Your task to perform on an android device: turn on the 24-hour format for clock Image 0: 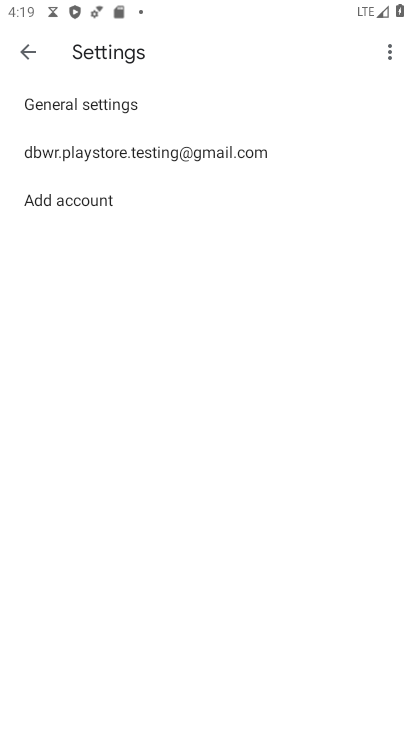
Step 0: press back button
Your task to perform on an android device: turn on the 24-hour format for clock Image 1: 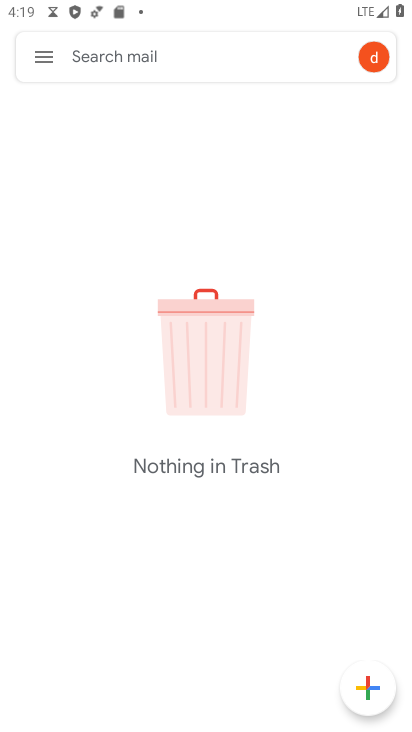
Step 1: press back button
Your task to perform on an android device: turn on the 24-hour format for clock Image 2: 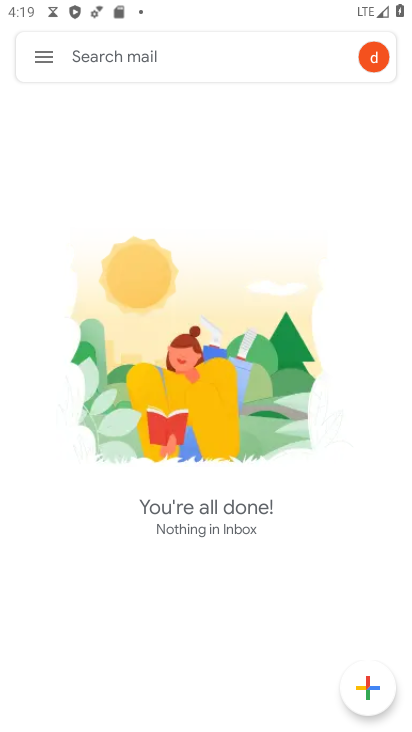
Step 2: press back button
Your task to perform on an android device: turn on the 24-hour format for clock Image 3: 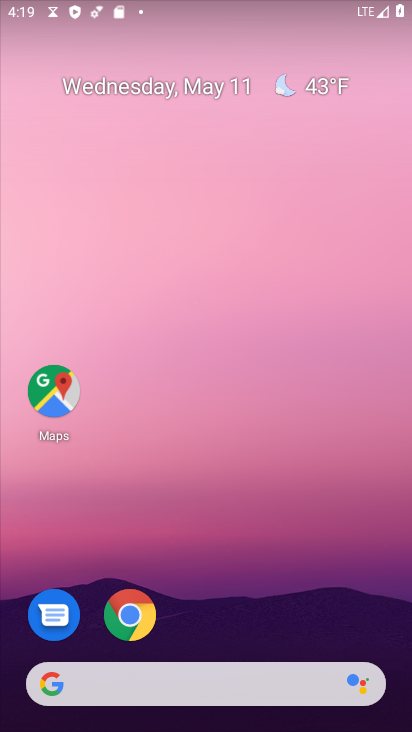
Step 3: drag from (235, 581) to (224, 3)
Your task to perform on an android device: turn on the 24-hour format for clock Image 4: 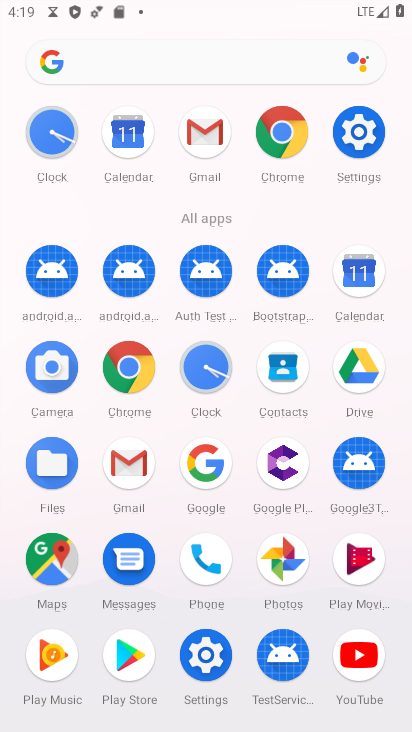
Step 4: click (205, 367)
Your task to perform on an android device: turn on the 24-hour format for clock Image 5: 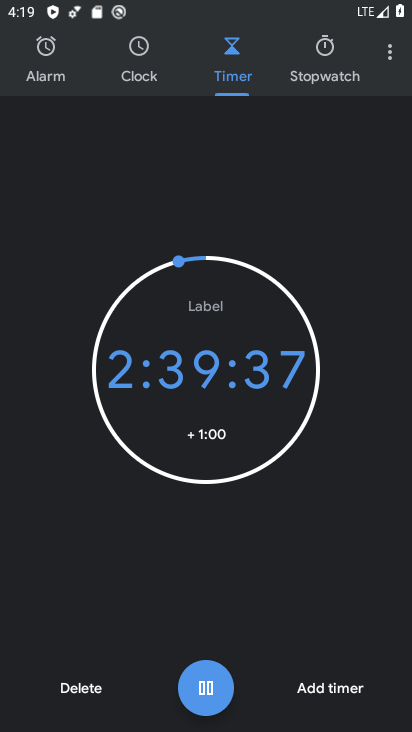
Step 5: drag from (390, 50) to (278, 100)
Your task to perform on an android device: turn on the 24-hour format for clock Image 6: 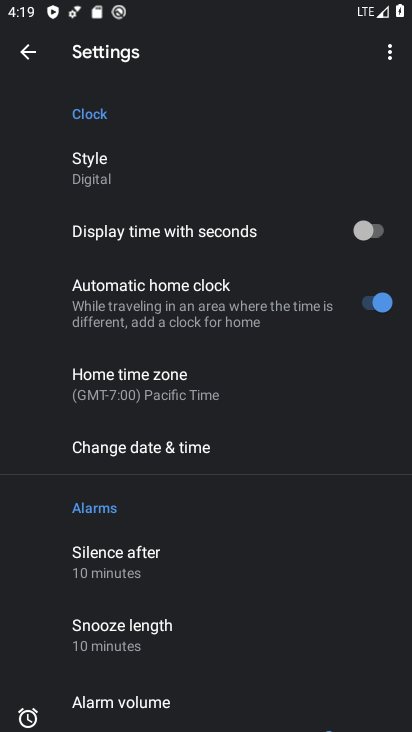
Step 6: click (213, 443)
Your task to perform on an android device: turn on the 24-hour format for clock Image 7: 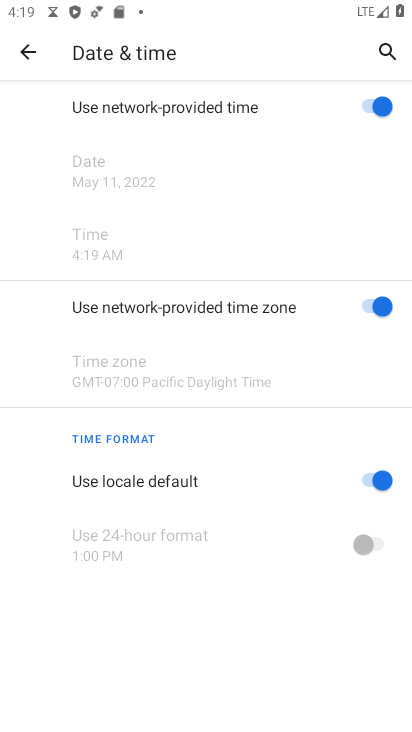
Step 7: click (368, 475)
Your task to perform on an android device: turn on the 24-hour format for clock Image 8: 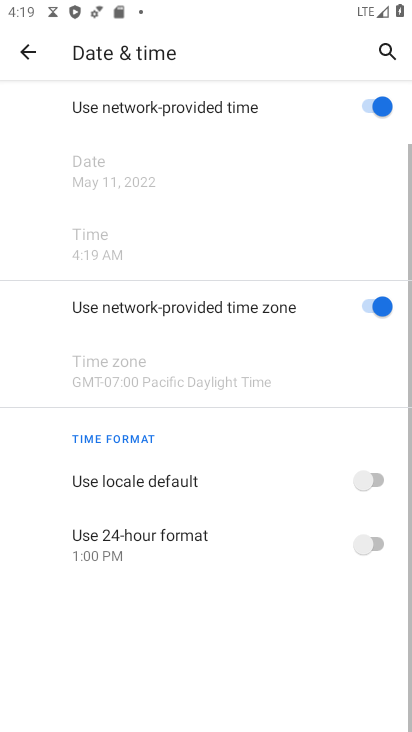
Step 8: click (366, 545)
Your task to perform on an android device: turn on the 24-hour format for clock Image 9: 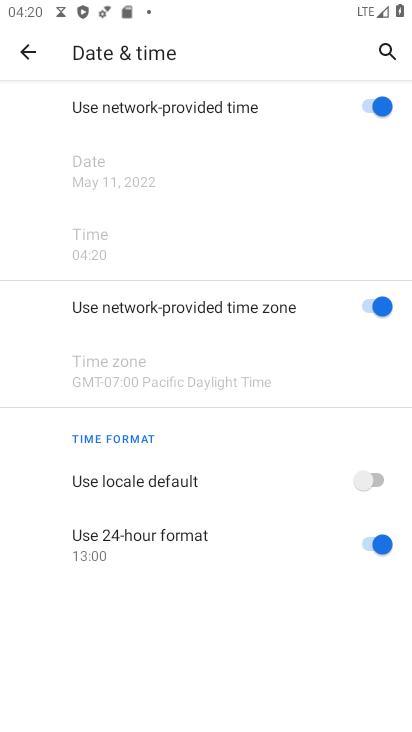
Step 9: task complete